Your task to perform on an android device: open chrome privacy settings Image 0: 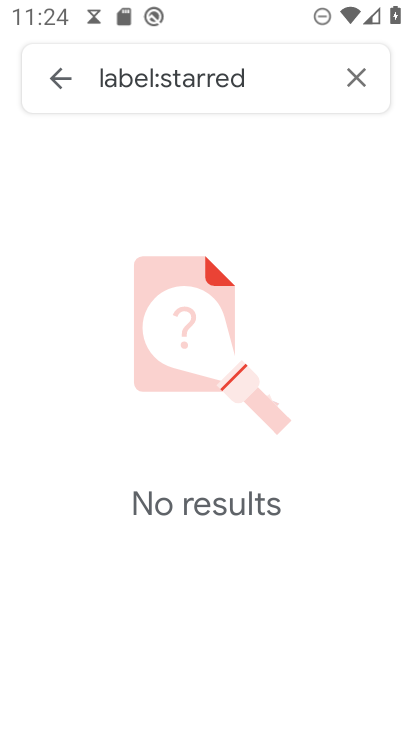
Step 0: press home button
Your task to perform on an android device: open chrome privacy settings Image 1: 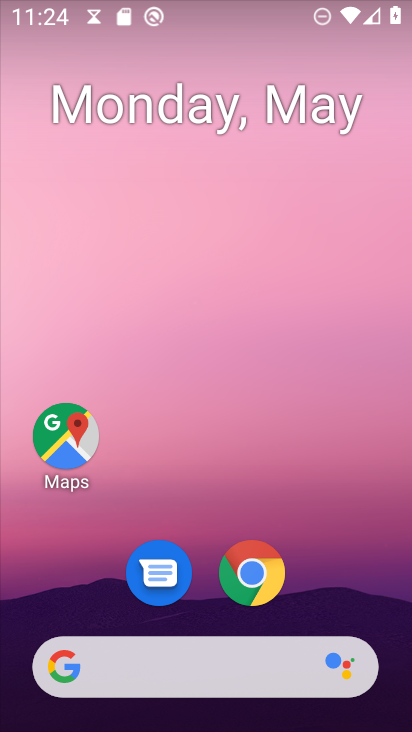
Step 1: click (256, 582)
Your task to perform on an android device: open chrome privacy settings Image 2: 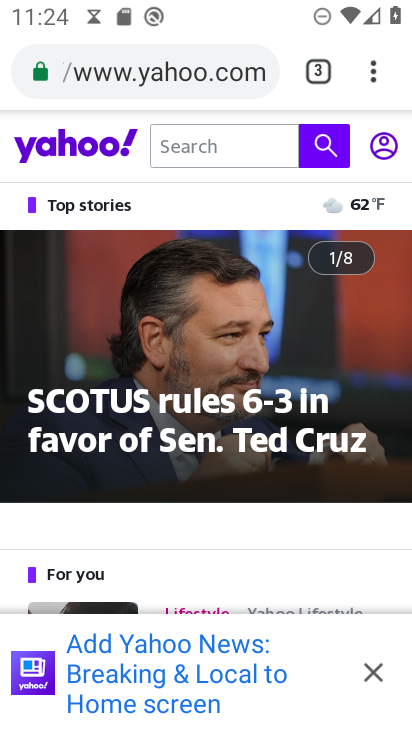
Step 2: click (365, 60)
Your task to perform on an android device: open chrome privacy settings Image 3: 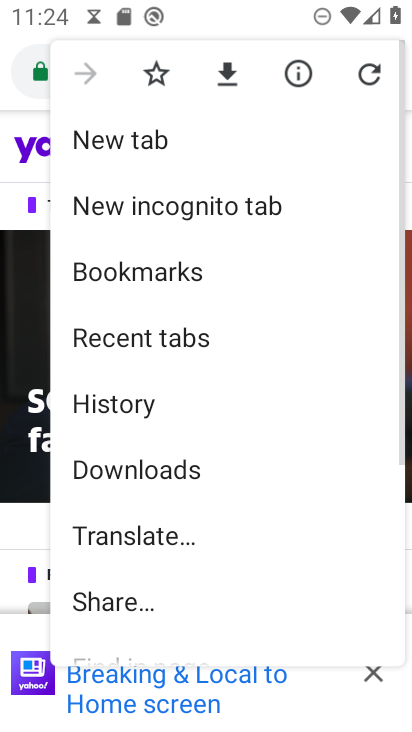
Step 3: drag from (203, 517) to (177, 227)
Your task to perform on an android device: open chrome privacy settings Image 4: 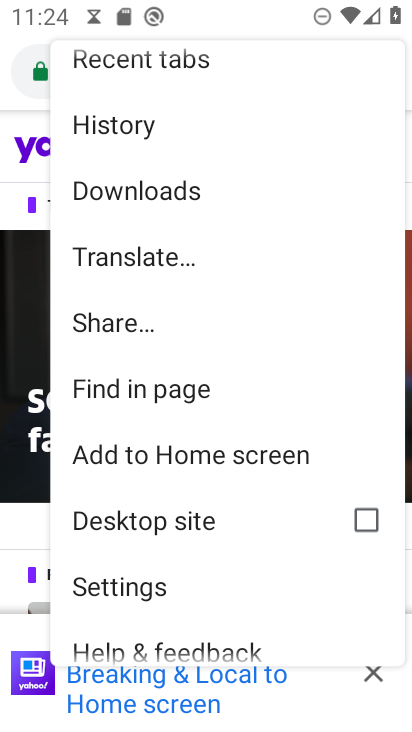
Step 4: click (162, 586)
Your task to perform on an android device: open chrome privacy settings Image 5: 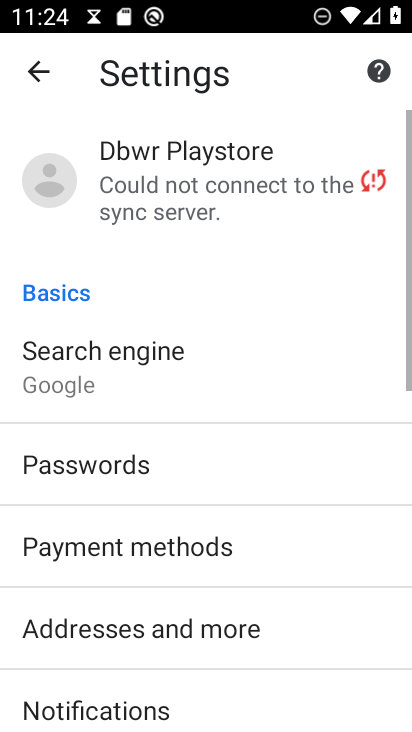
Step 5: drag from (202, 539) to (192, 231)
Your task to perform on an android device: open chrome privacy settings Image 6: 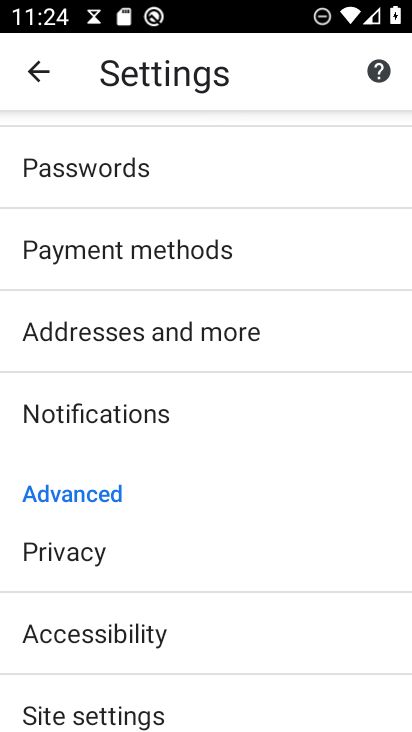
Step 6: click (145, 573)
Your task to perform on an android device: open chrome privacy settings Image 7: 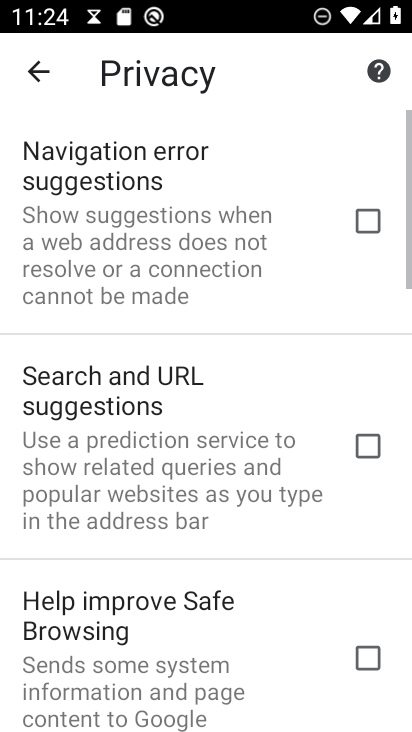
Step 7: task complete